Your task to perform on an android device: star an email in the gmail app Image 0: 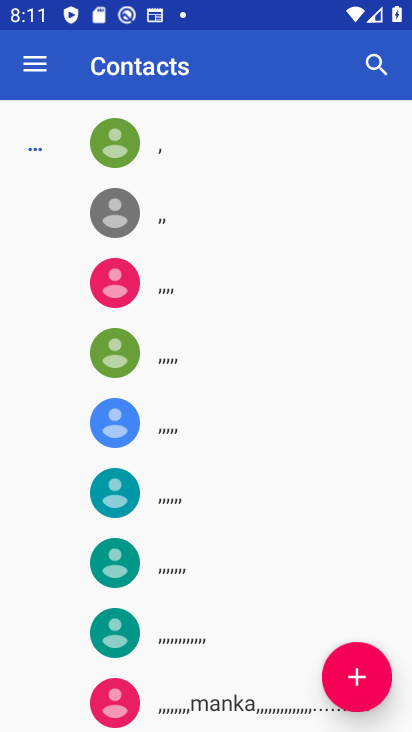
Step 0: press home button
Your task to perform on an android device: star an email in the gmail app Image 1: 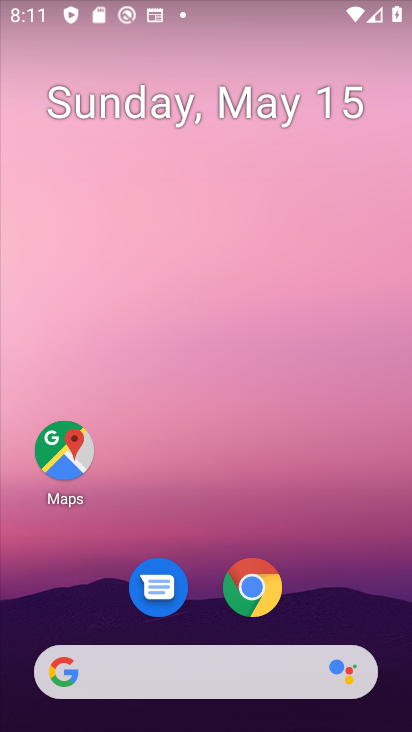
Step 1: drag from (204, 625) to (251, 135)
Your task to perform on an android device: star an email in the gmail app Image 2: 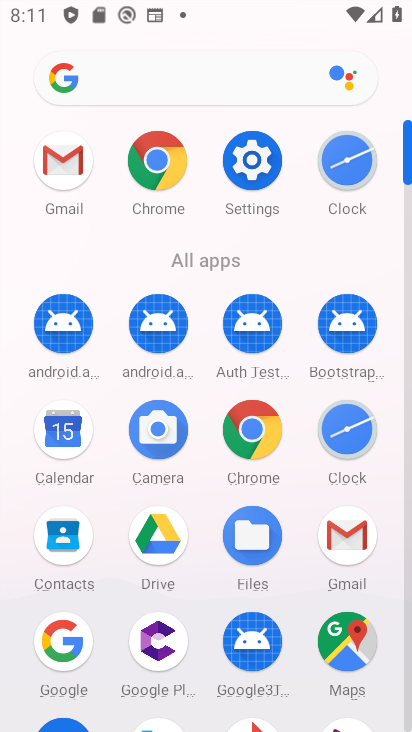
Step 2: click (353, 535)
Your task to perform on an android device: star an email in the gmail app Image 3: 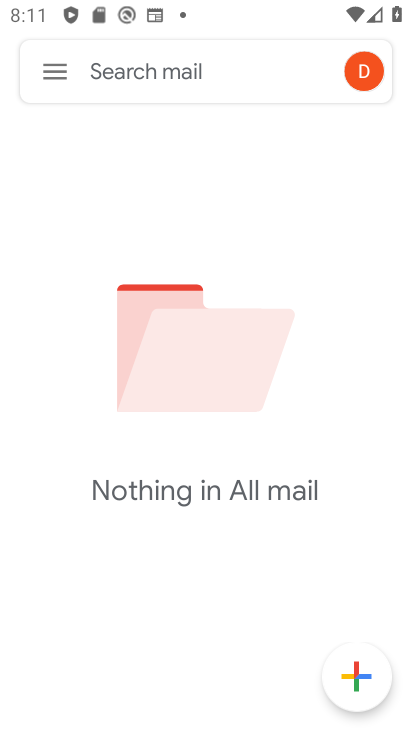
Step 3: click (50, 76)
Your task to perform on an android device: star an email in the gmail app Image 4: 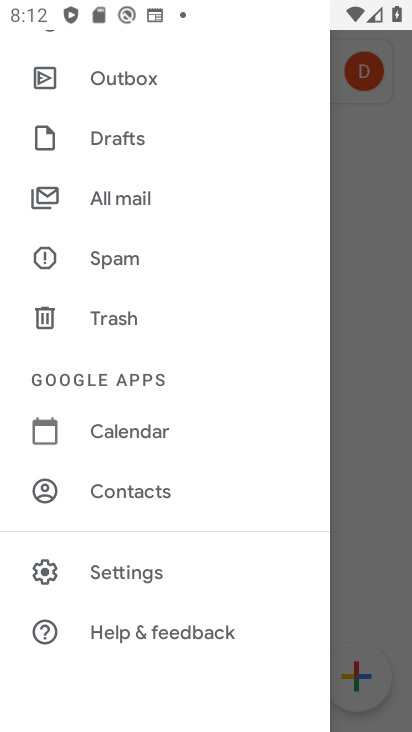
Step 4: click (115, 199)
Your task to perform on an android device: star an email in the gmail app Image 5: 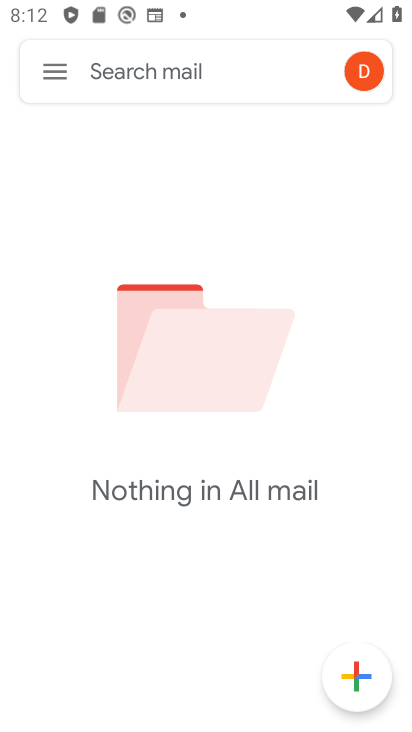
Step 5: task complete